Your task to perform on an android device: add a label to a message in the gmail app Image 0: 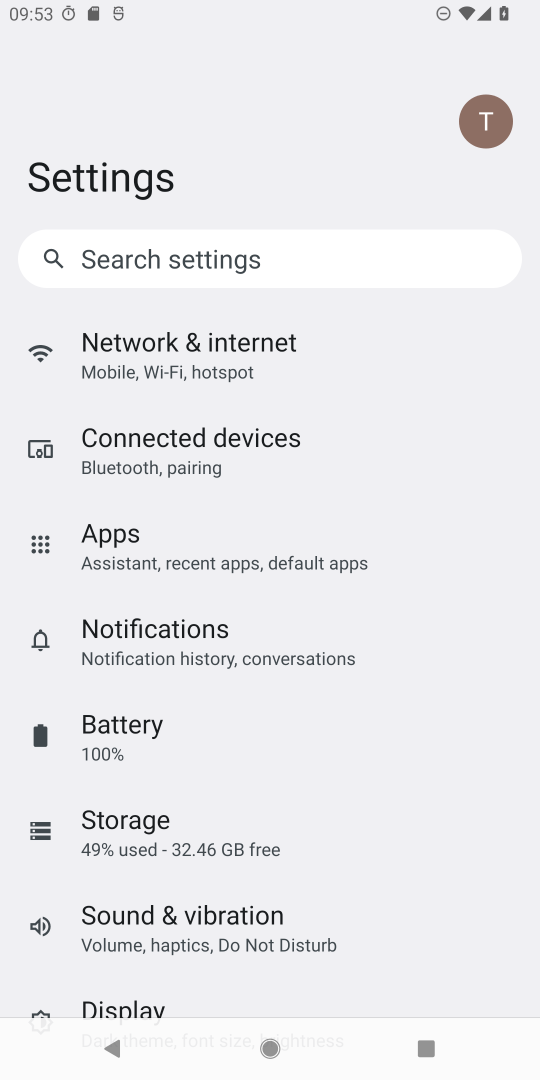
Step 0: press home button
Your task to perform on an android device: add a label to a message in the gmail app Image 1: 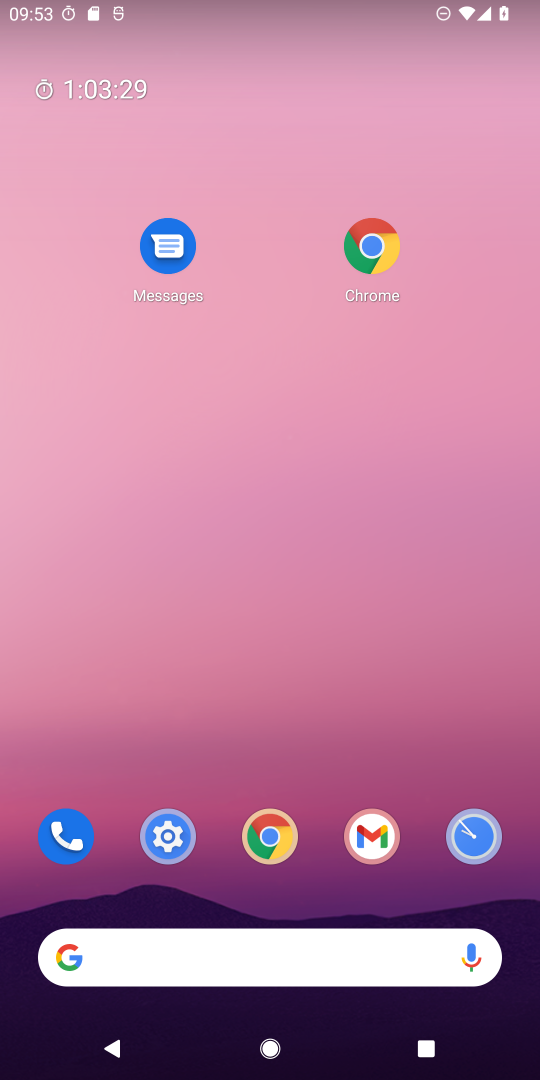
Step 1: drag from (258, 563) to (258, 254)
Your task to perform on an android device: add a label to a message in the gmail app Image 2: 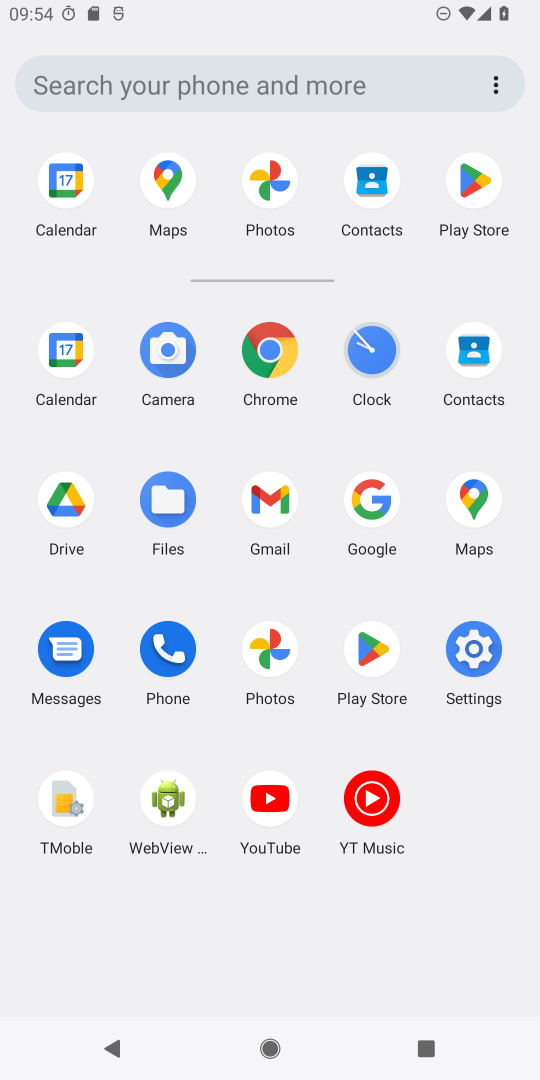
Step 2: click (260, 489)
Your task to perform on an android device: add a label to a message in the gmail app Image 3: 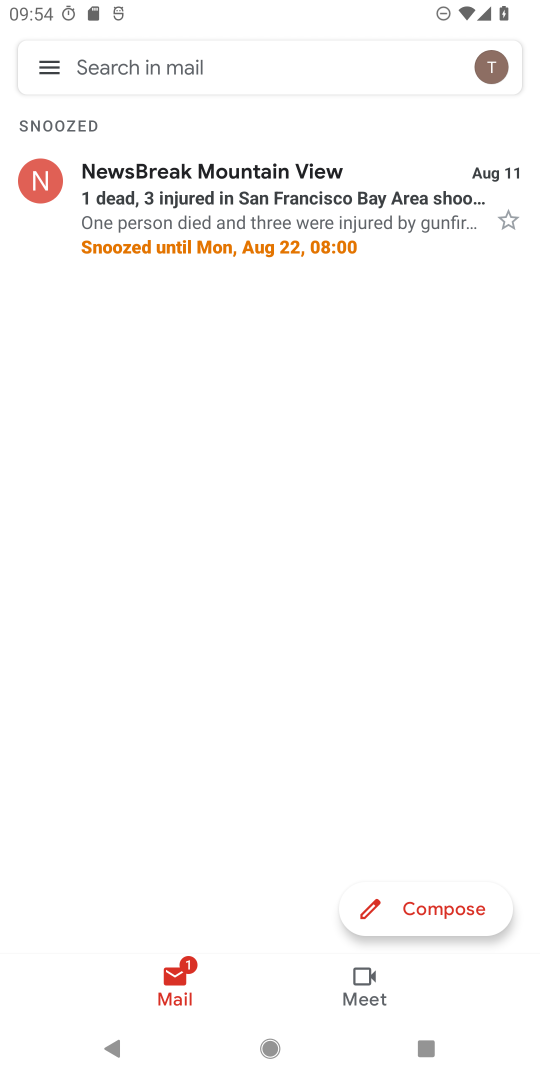
Step 3: click (52, 58)
Your task to perform on an android device: add a label to a message in the gmail app Image 4: 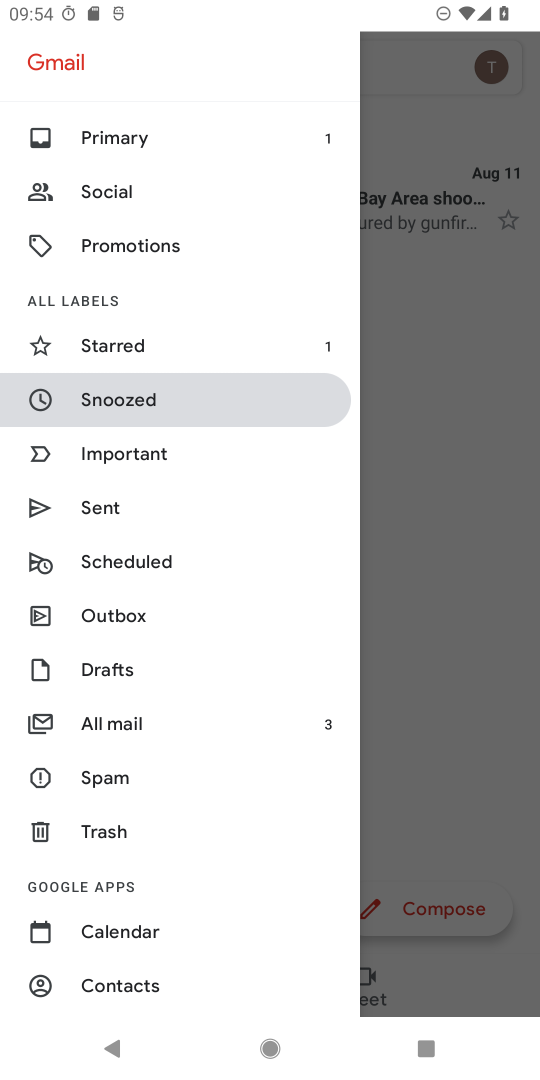
Step 4: drag from (143, 837) to (229, 439)
Your task to perform on an android device: add a label to a message in the gmail app Image 5: 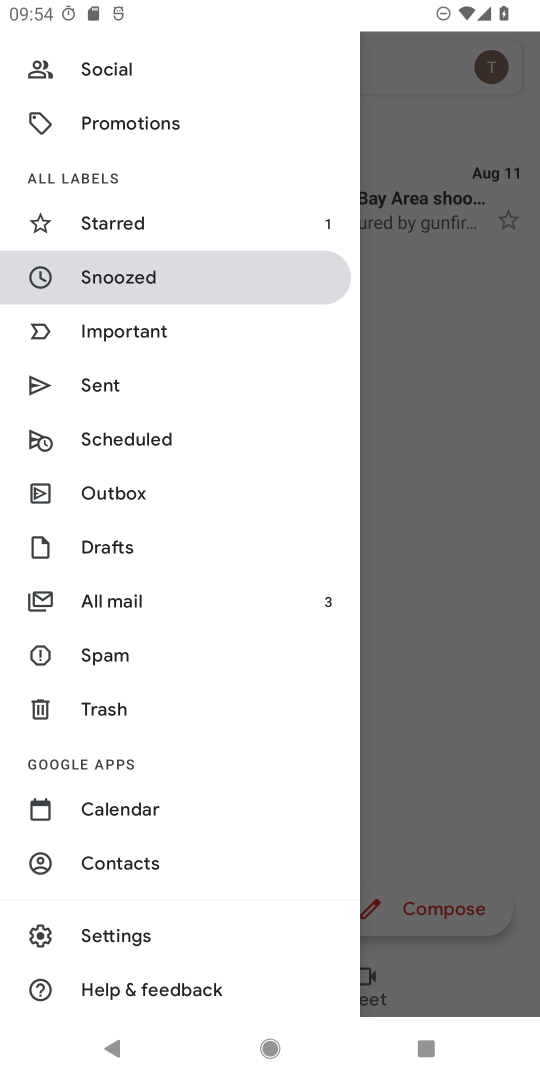
Step 5: click (137, 610)
Your task to perform on an android device: add a label to a message in the gmail app Image 6: 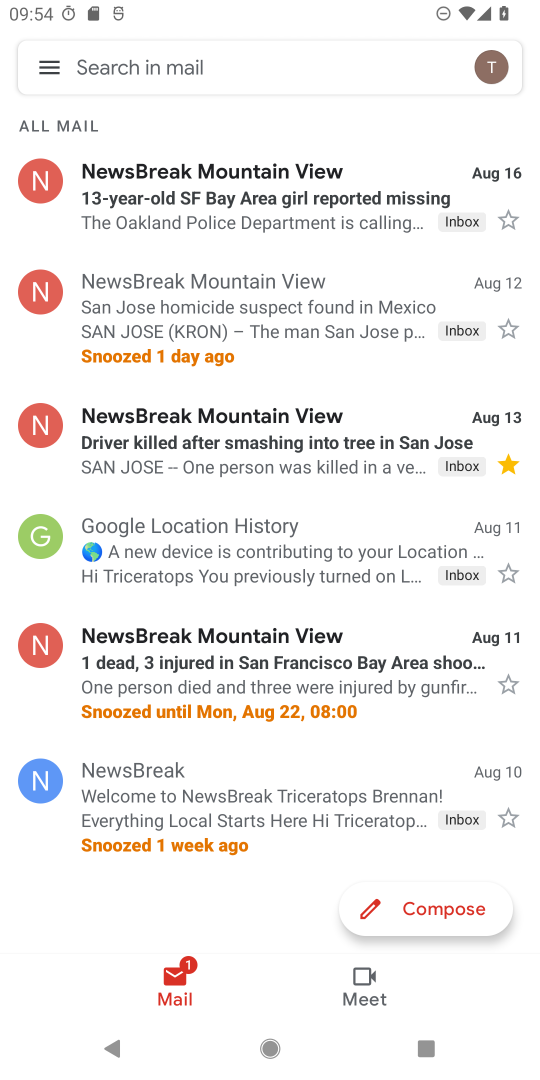
Step 6: click (287, 190)
Your task to perform on an android device: add a label to a message in the gmail app Image 7: 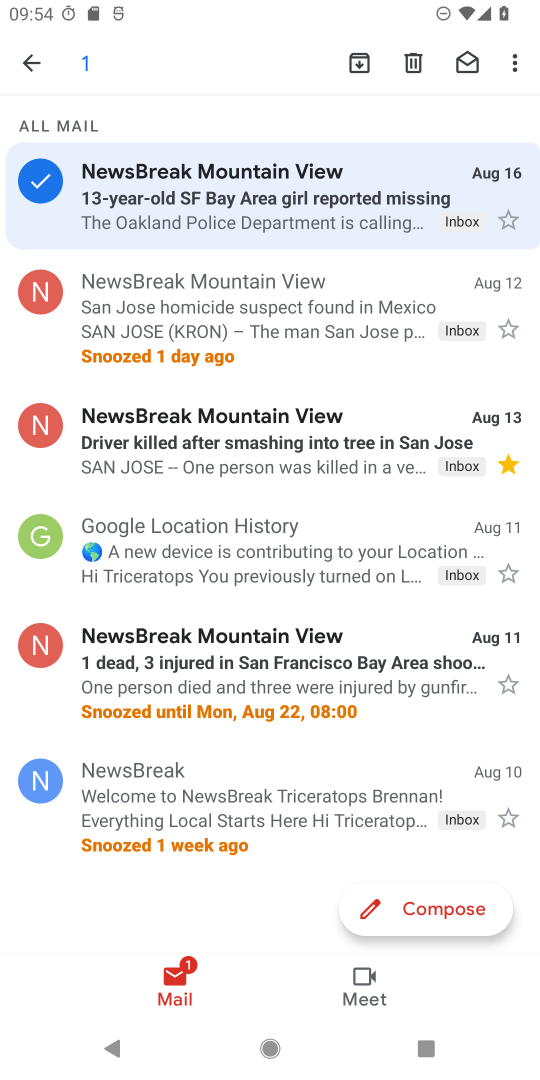
Step 7: click (522, 55)
Your task to perform on an android device: add a label to a message in the gmail app Image 8: 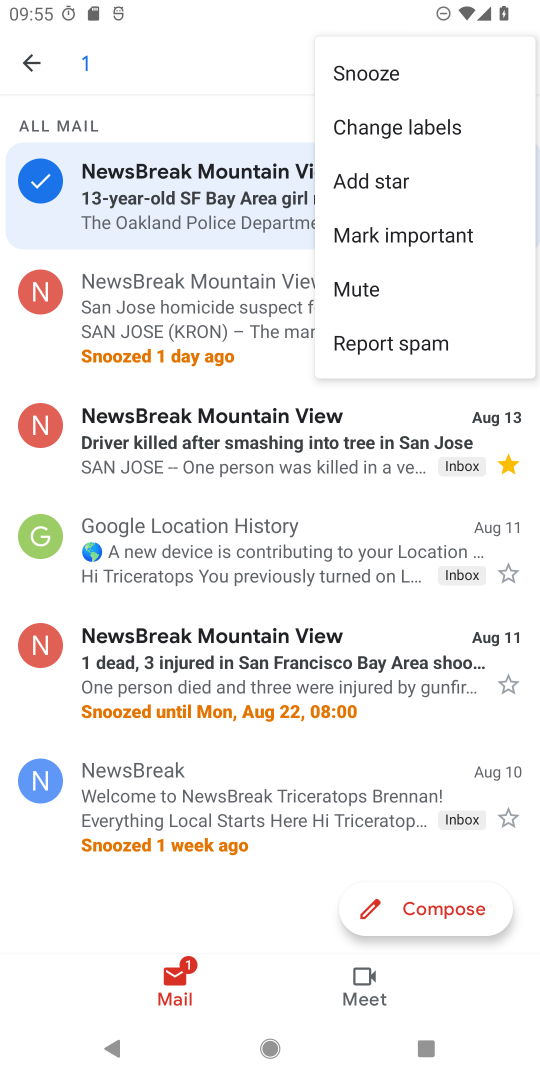
Step 8: click (441, 114)
Your task to perform on an android device: add a label to a message in the gmail app Image 9: 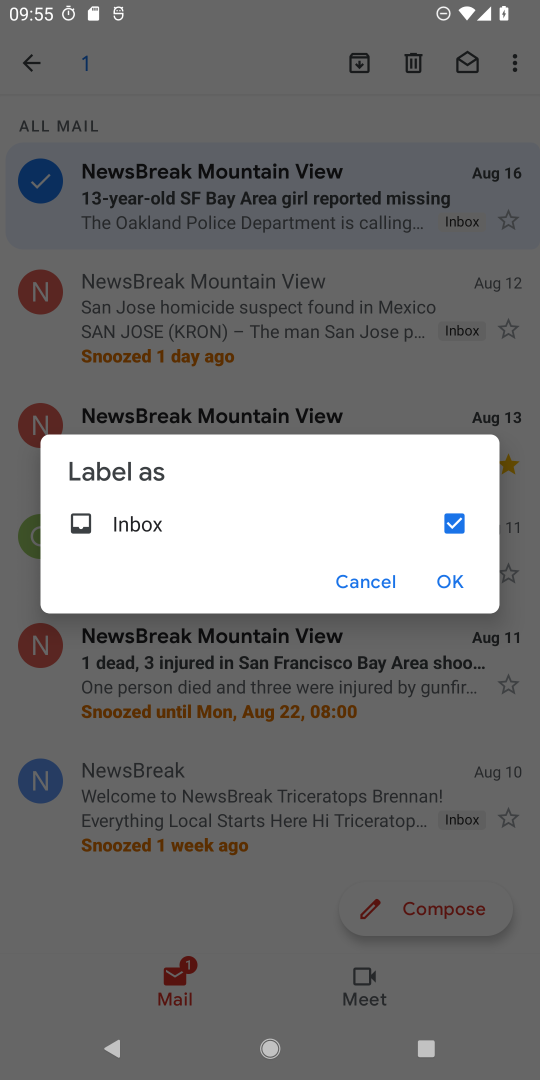
Step 9: click (426, 577)
Your task to perform on an android device: add a label to a message in the gmail app Image 10: 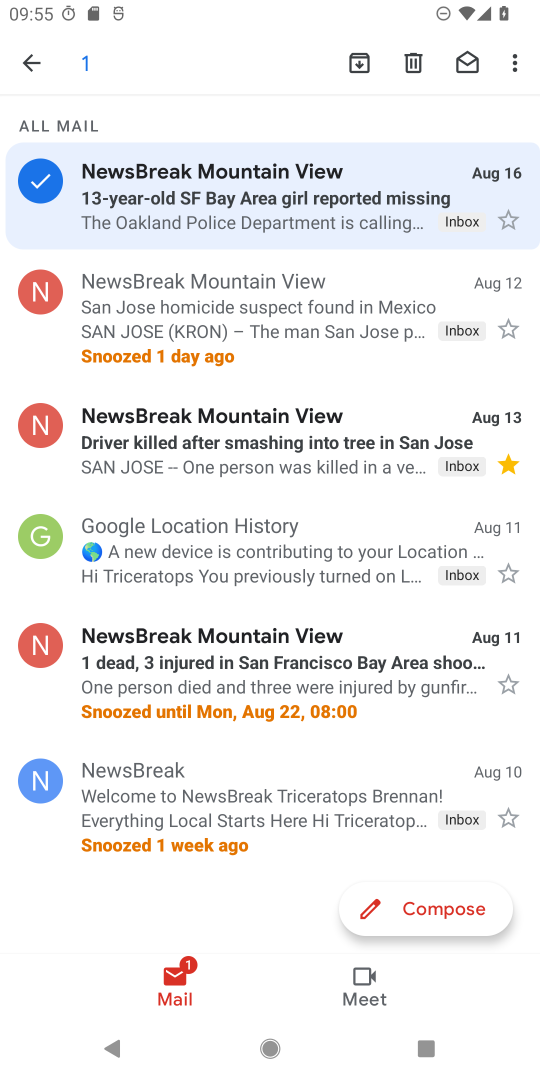
Step 10: task complete